Your task to perform on an android device: Open Youtube and go to "Your channel" Image 0: 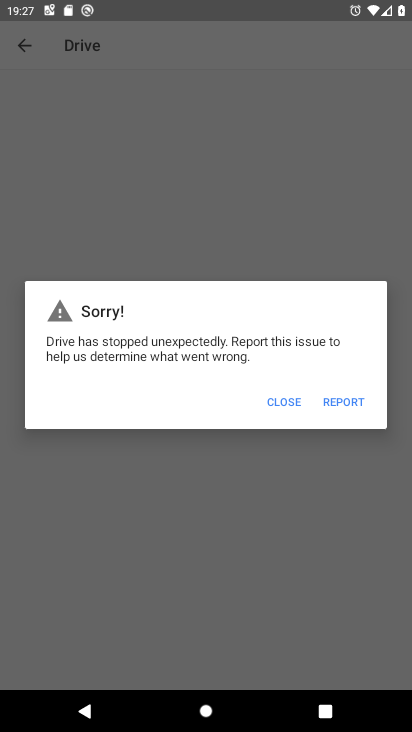
Step 0: press home button
Your task to perform on an android device: Open Youtube and go to "Your channel" Image 1: 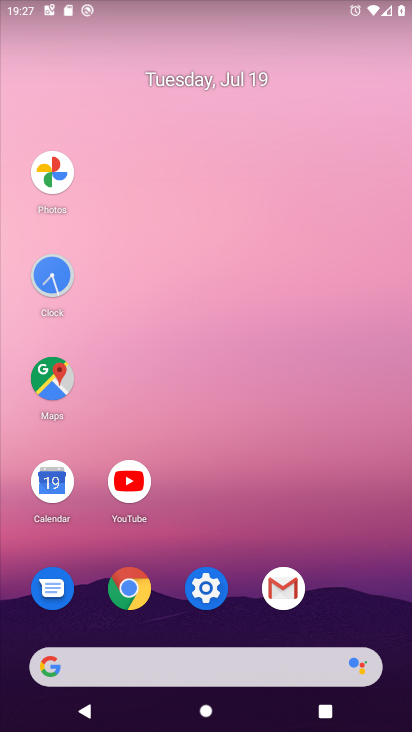
Step 1: click (126, 488)
Your task to perform on an android device: Open Youtube and go to "Your channel" Image 2: 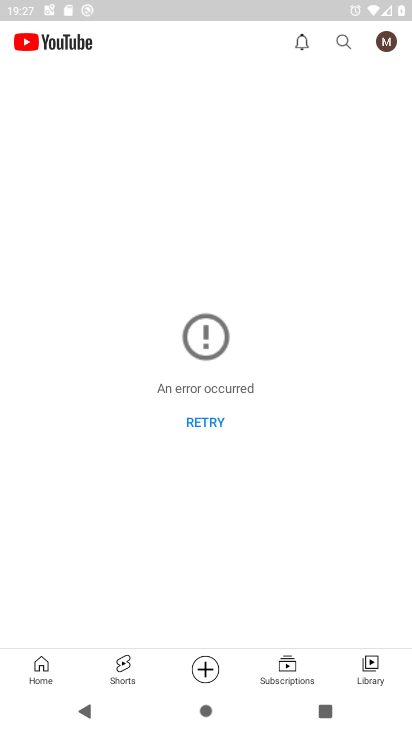
Step 2: click (201, 415)
Your task to perform on an android device: Open Youtube and go to "Your channel" Image 3: 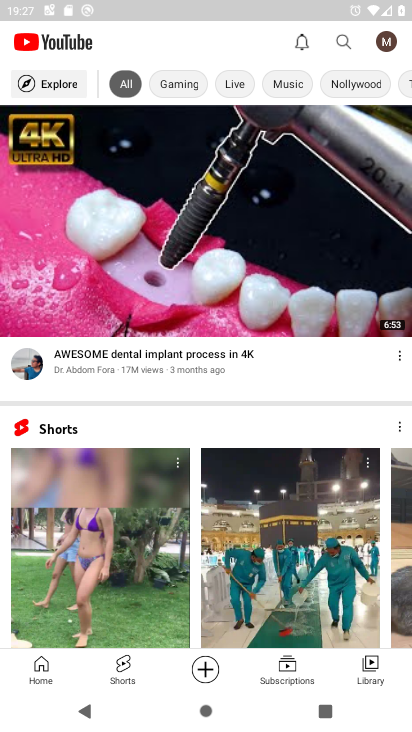
Step 3: click (393, 39)
Your task to perform on an android device: Open Youtube and go to "Your channel" Image 4: 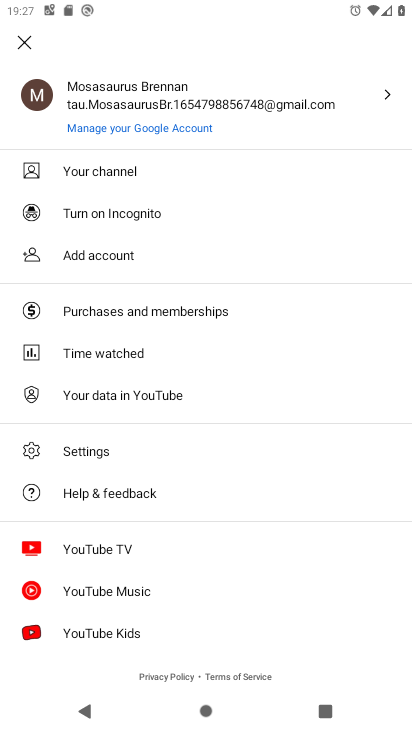
Step 4: click (121, 171)
Your task to perform on an android device: Open Youtube and go to "Your channel" Image 5: 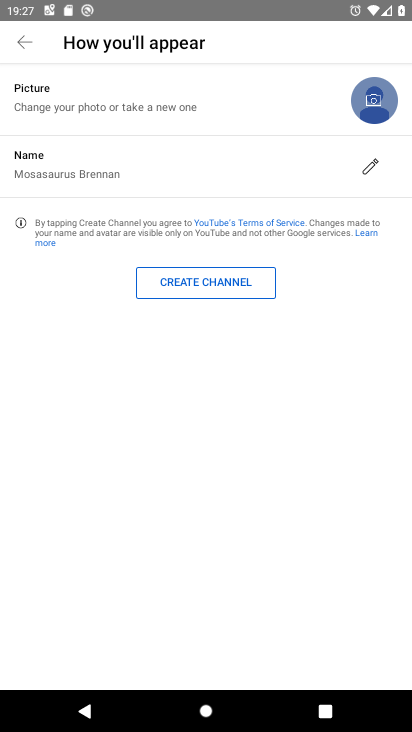
Step 5: task complete